Your task to perform on an android device: turn off notifications settings in the gmail app Image 0: 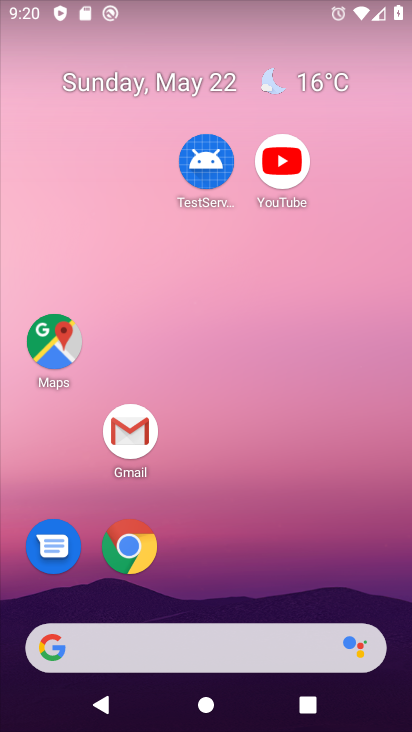
Step 0: drag from (258, 690) to (178, 79)
Your task to perform on an android device: turn off notifications settings in the gmail app Image 1: 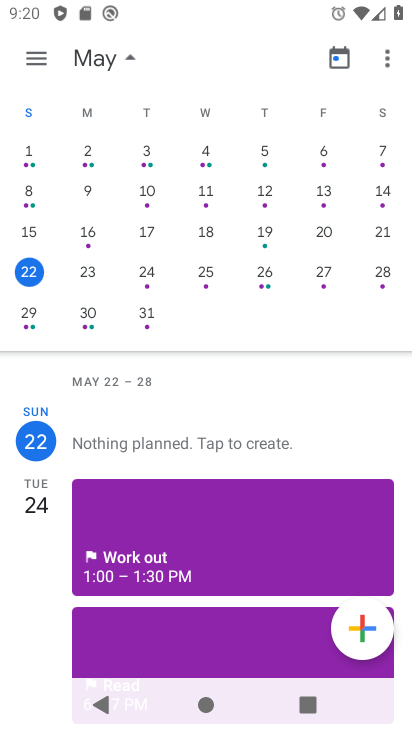
Step 1: press back button
Your task to perform on an android device: turn off notifications settings in the gmail app Image 2: 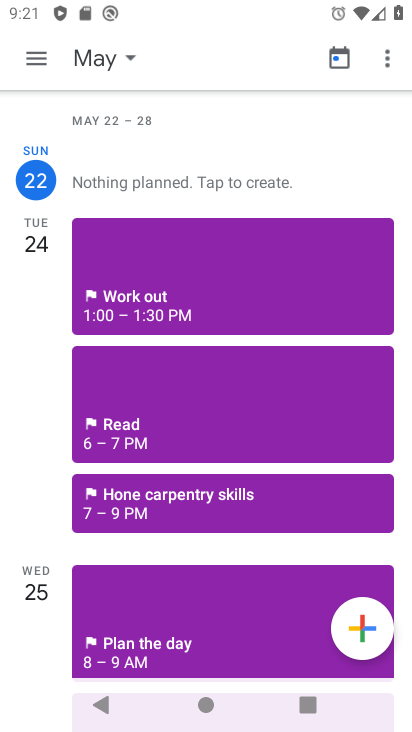
Step 2: press home button
Your task to perform on an android device: turn off notifications settings in the gmail app Image 3: 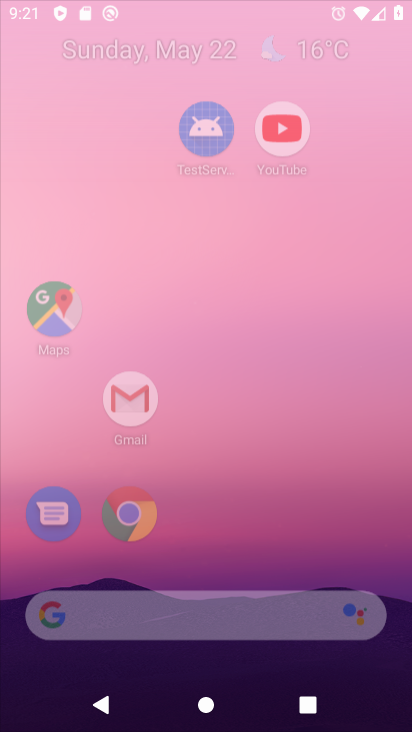
Step 3: press back button
Your task to perform on an android device: turn off notifications settings in the gmail app Image 4: 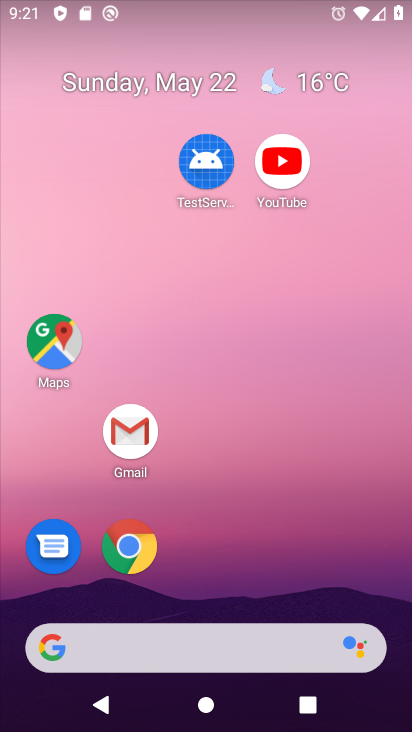
Step 4: drag from (235, 659) to (130, 43)
Your task to perform on an android device: turn off notifications settings in the gmail app Image 5: 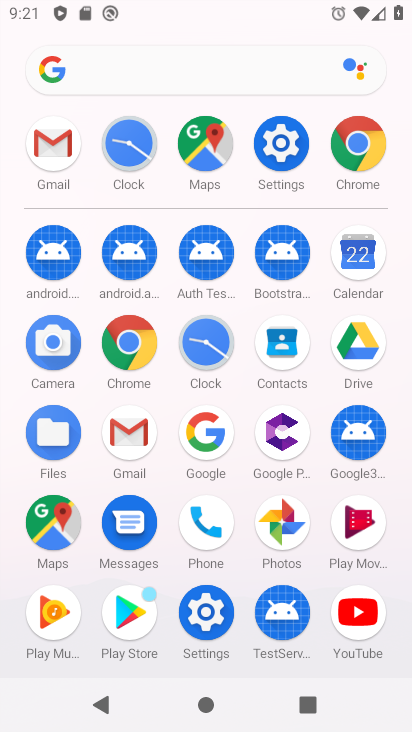
Step 5: click (118, 436)
Your task to perform on an android device: turn off notifications settings in the gmail app Image 6: 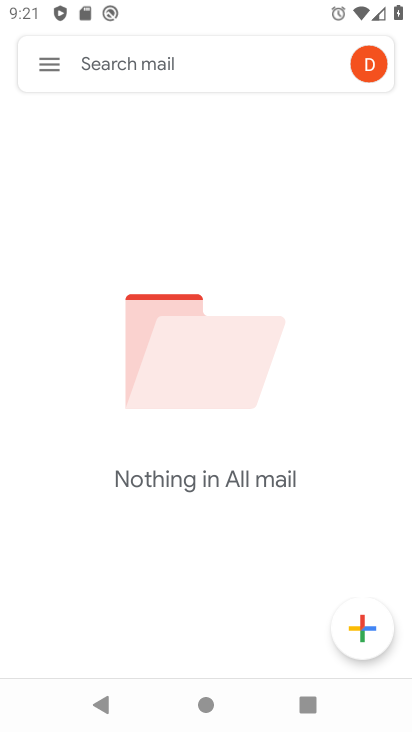
Step 6: drag from (45, 66) to (41, 246)
Your task to perform on an android device: turn off notifications settings in the gmail app Image 7: 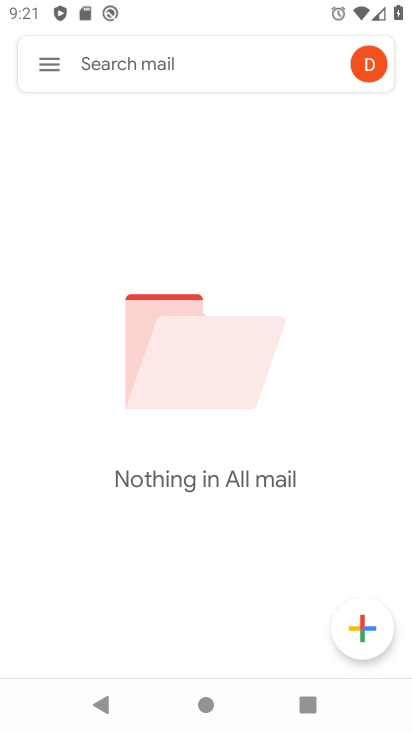
Step 7: click (39, 66)
Your task to perform on an android device: turn off notifications settings in the gmail app Image 8: 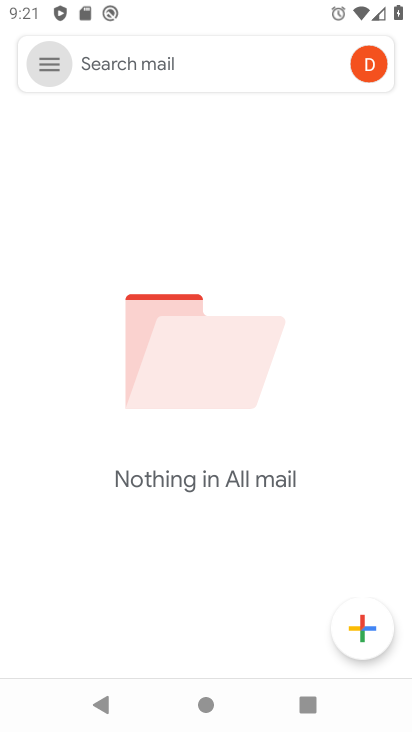
Step 8: click (49, 70)
Your task to perform on an android device: turn off notifications settings in the gmail app Image 9: 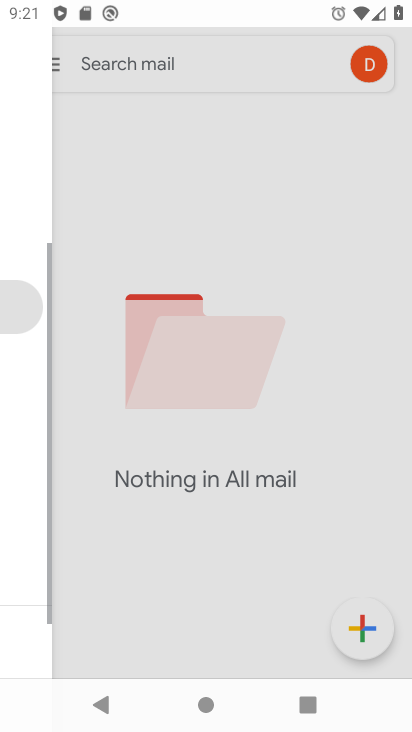
Step 9: click (49, 70)
Your task to perform on an android device: turn off notifications settings in the gmail app Image 10: 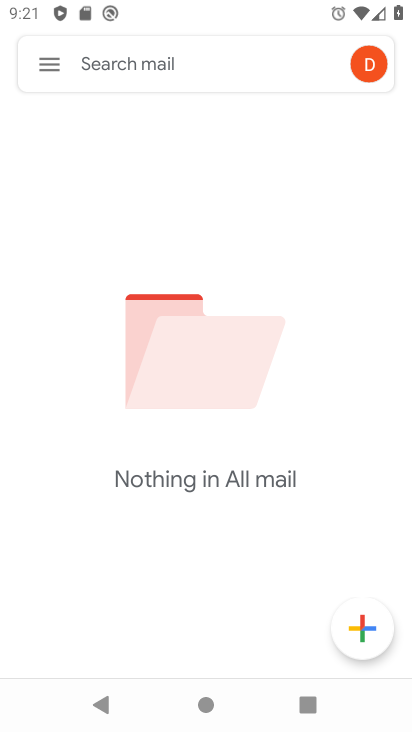
Step 10: click (58, 66)
Your task to perform on an android device: turn off notifications settings in the gmail app Image 11: 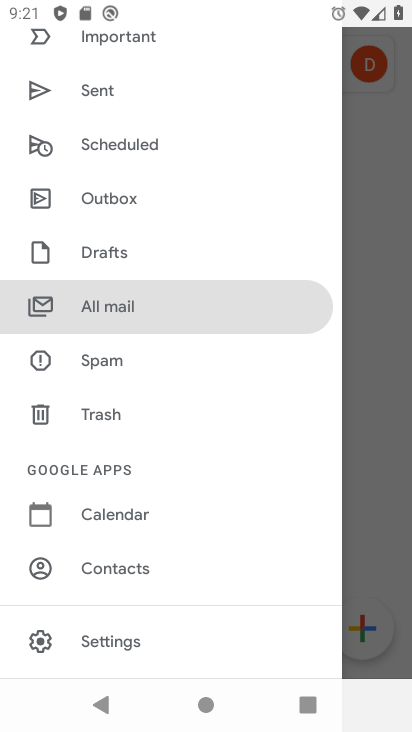
Step 11: drag from (146, 474) to (111, 161)
Your task to perform on an android device: turn off notifications settings in the gmail app Image 12: 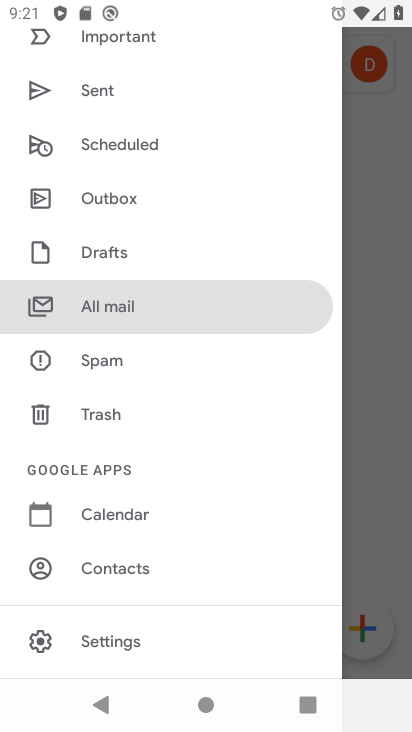
Step 12: drag from (177, 386) to (177, 151)
Your task to perform on an android device: turn off notifications settings in the gmail app Image 13: 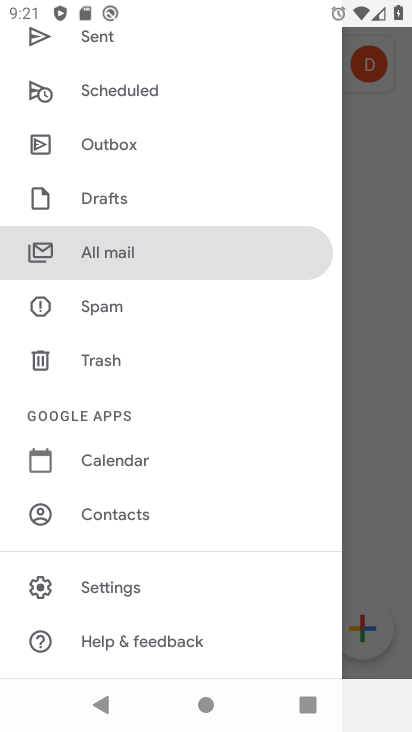
Step 13: click (99, 581)
Your task to perform on an android device: turn off notifications settings in the gmail app Image 14: 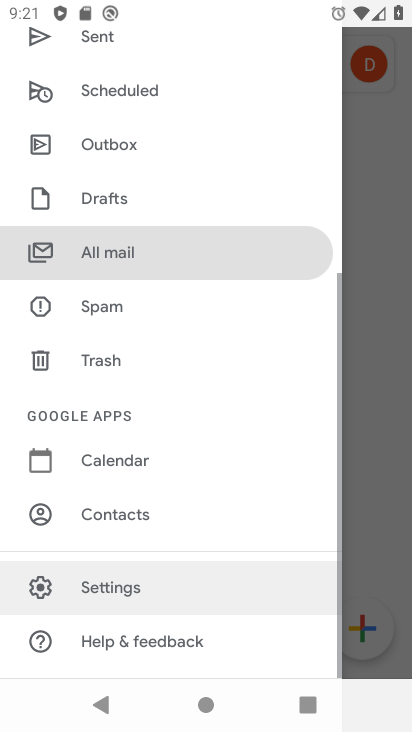
Step 14: click (99, 581)
Your task to perform on an android device: turn off notifications settings in the gmail app Image 15: 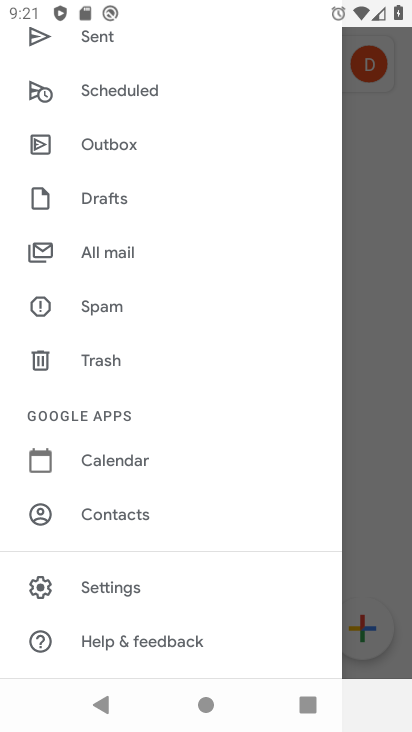
Step 15: click (120, 574)
Your task to perform on an android device: turn off notifications settings in the gmail app Image 16: 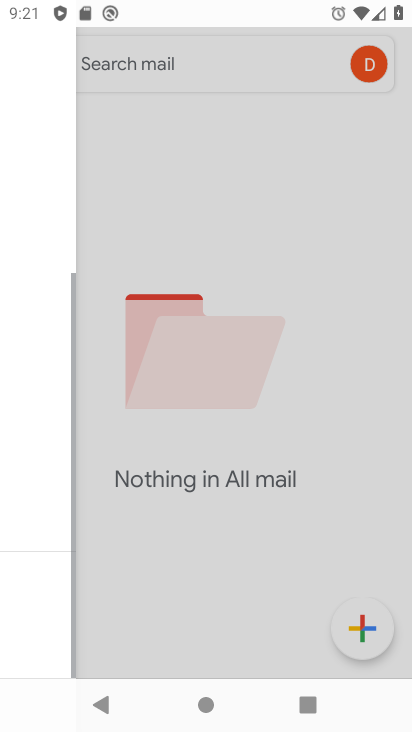
Step 16: click (120, 574)
Your task to perform on an android device: turn off notifications settings in the gmail app Image 17: 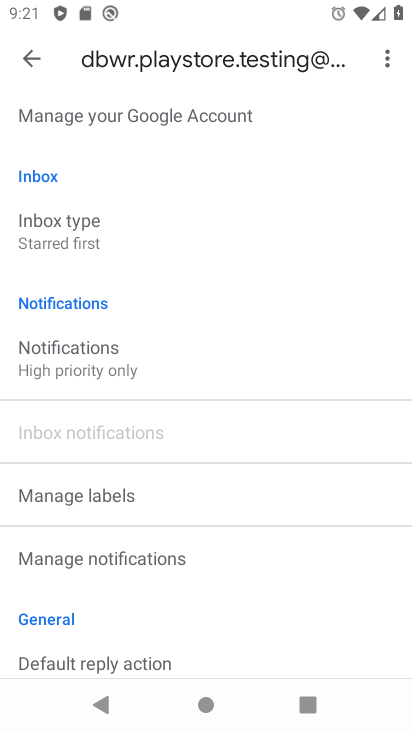
Step 17: click (53, 354)
Your task to perform on an android device: turn off notifications settings in the gmail app Image 18: 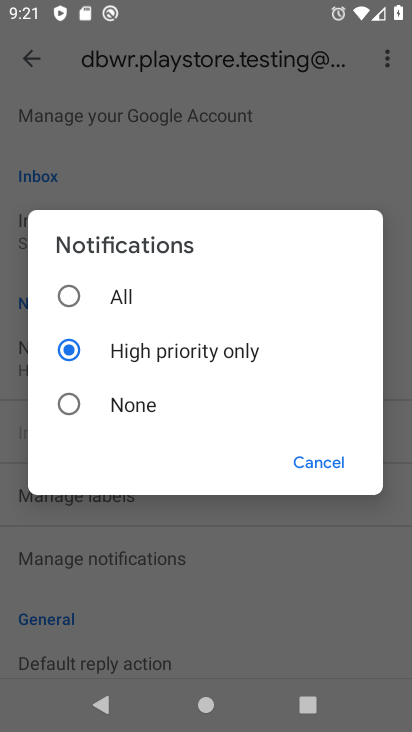
Step 18: click (70, 395)
Your task to perform on an android device: turn off notifications settings in the gmail app Image 19: 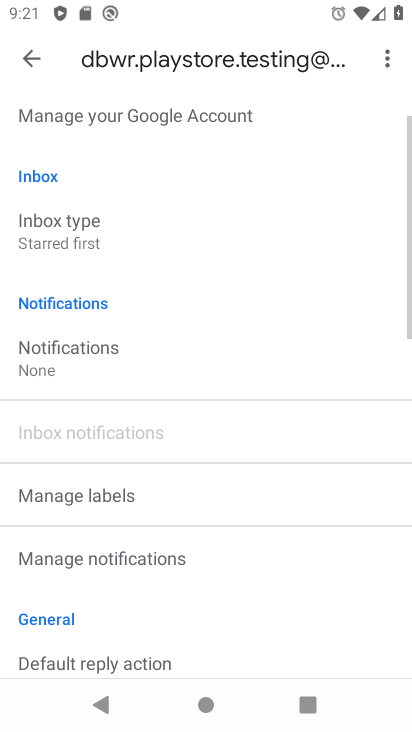
Step 19: task complete